Your task to perform on an android device: What is the news today? Image 0: 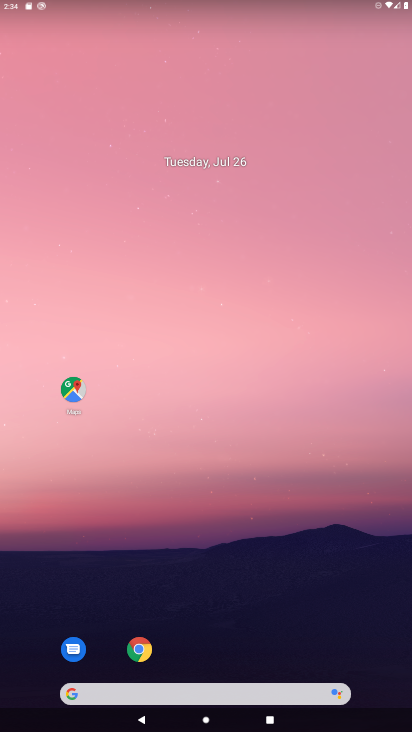
Step 0: click (124, 695)
Your task to perform on an android device: What is the news today? Image 1: 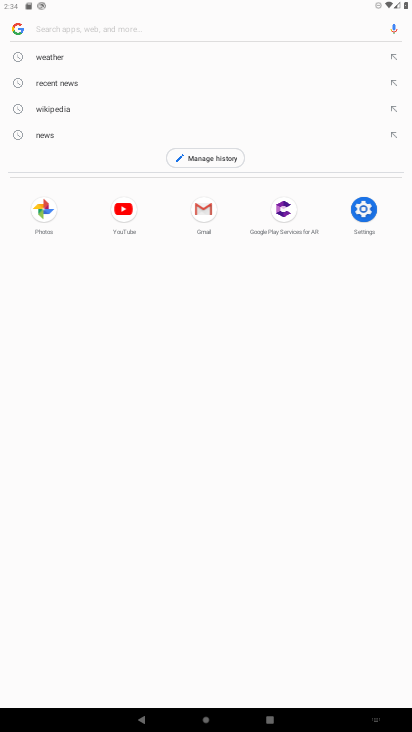
Step 1: click (19, 34)
Your task to perform on an android device: What is the news today? Image 2: 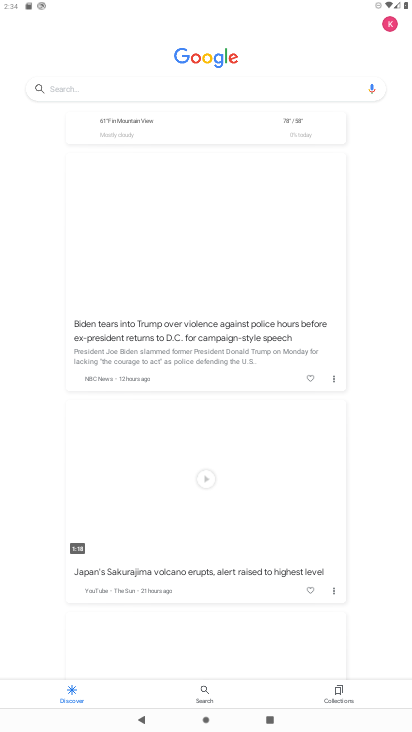
Step 2: task complete